Your task to perform on an android device: Go to Maps Image 0: 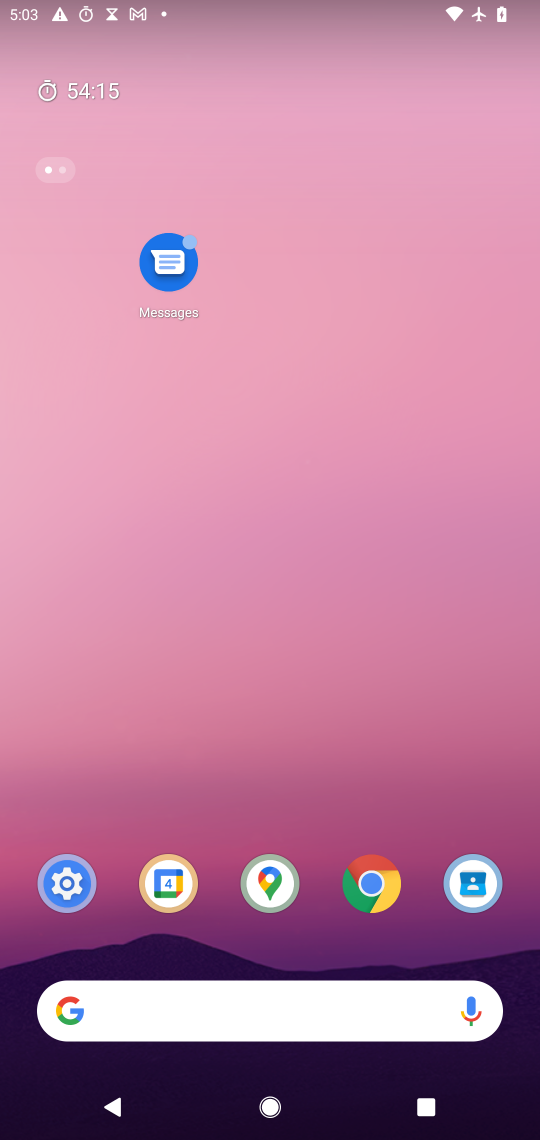
Step 0: drag from (330, 868) to (313, 3)
Your task to perform on an android device: Go to Maps Image 1: 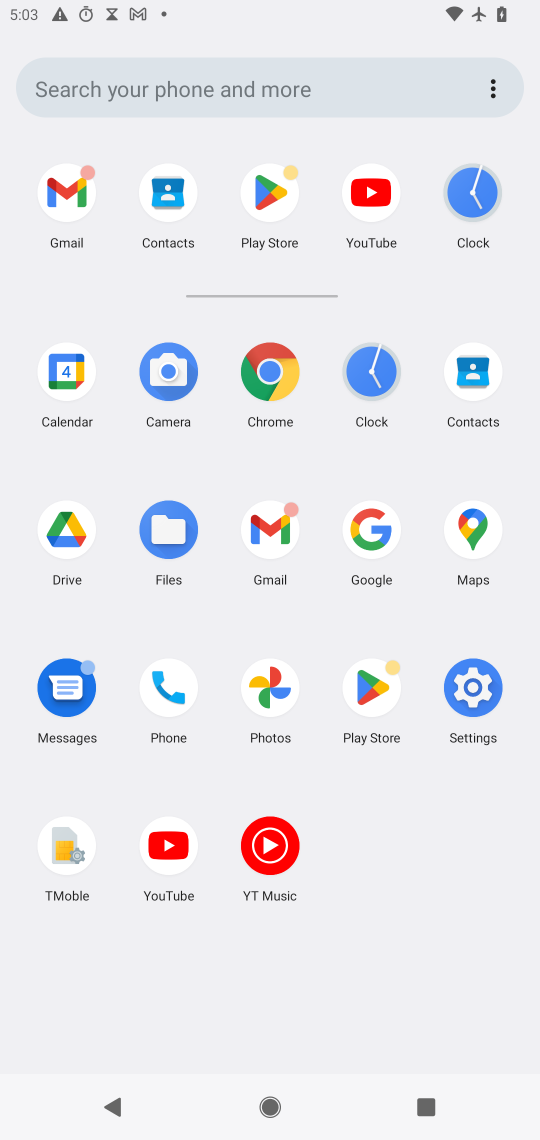
Step 1: click (462, 523)
Your task to perform on an android device: Go to Maps Image 2: 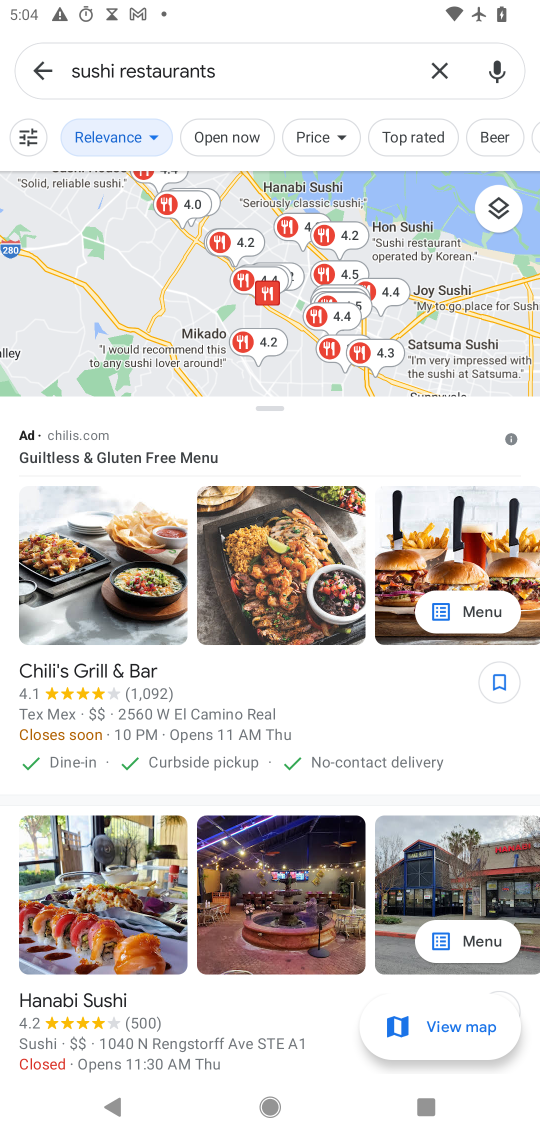
Step 2: task complete